Your task to perform on an android device: Open Google Maps Image 0: 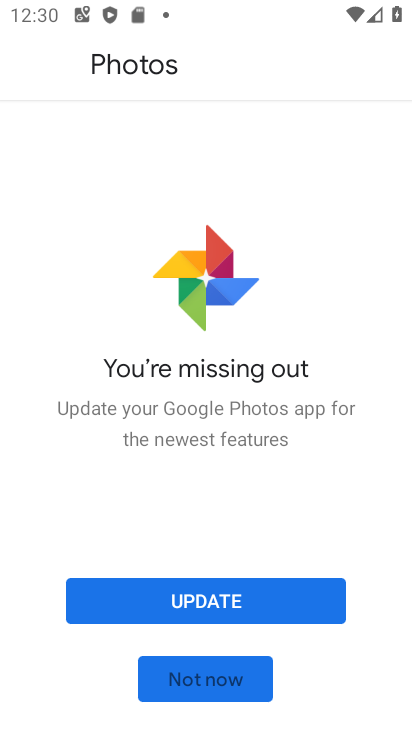
Step 0: press home button
Your task to perform on an android device: Open Google Maps Image 1: 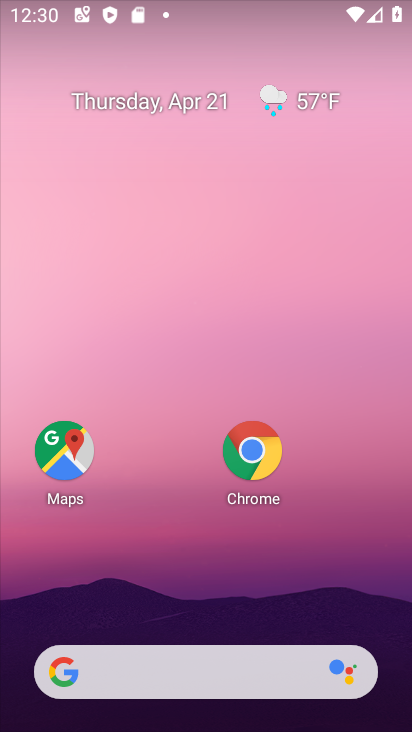
Step 1: click (62, 457)
Your task to perform on an android device: Open Google Maps Image 2: 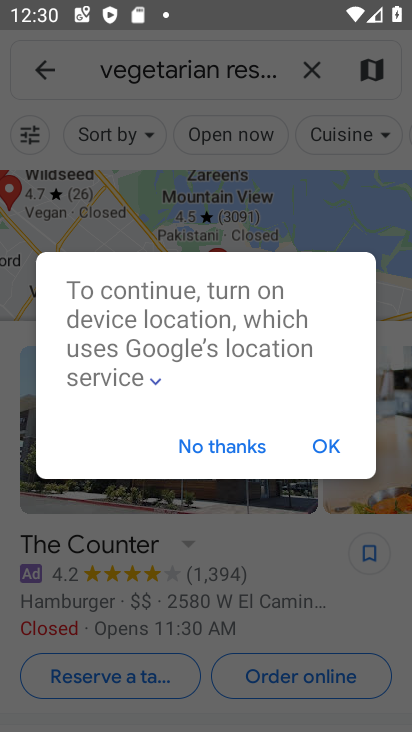
Step 2: task complete